Your task to perform on an android device: open app "NewsBreak: Local News & Alerts" (install if not already installed) Image 0: 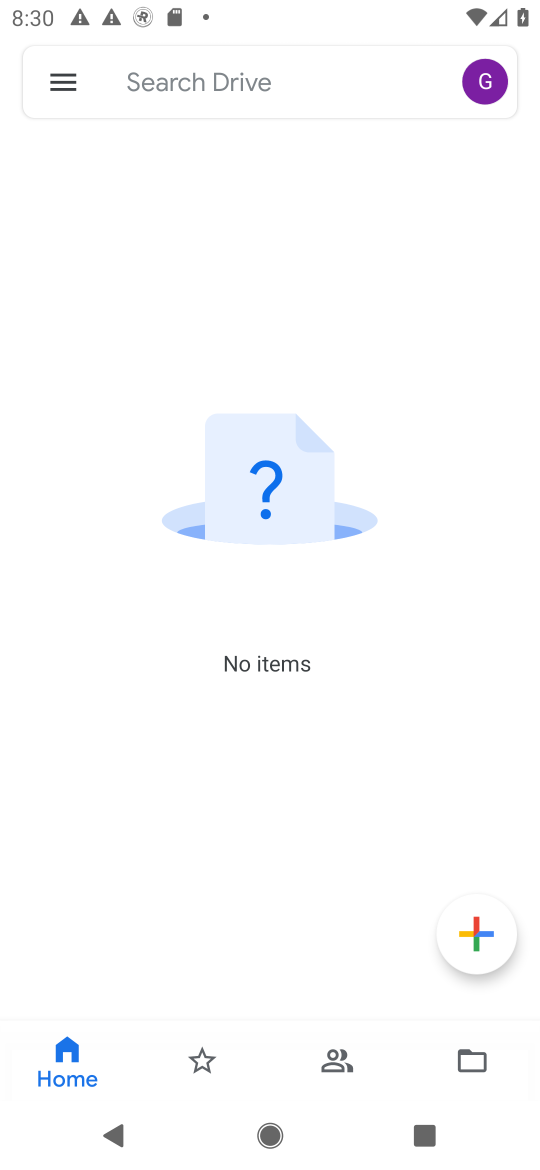
Step 0: press home button
Your task to perform on an android device: open app "NewsBreak: Local News & Alerts" (install if not already installed) Image 1: 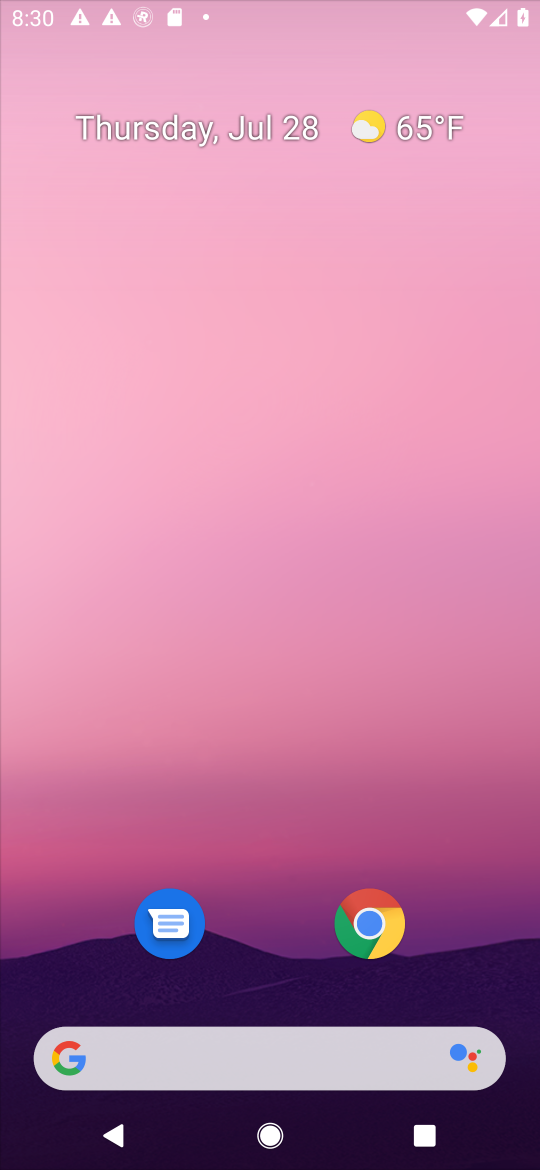
Step 1: drag from (430, 827) to (264, 92)
Your task to perform on an android device: open app "NewsBreak: Local News & Alerts" (install if not already installed) Image 2: 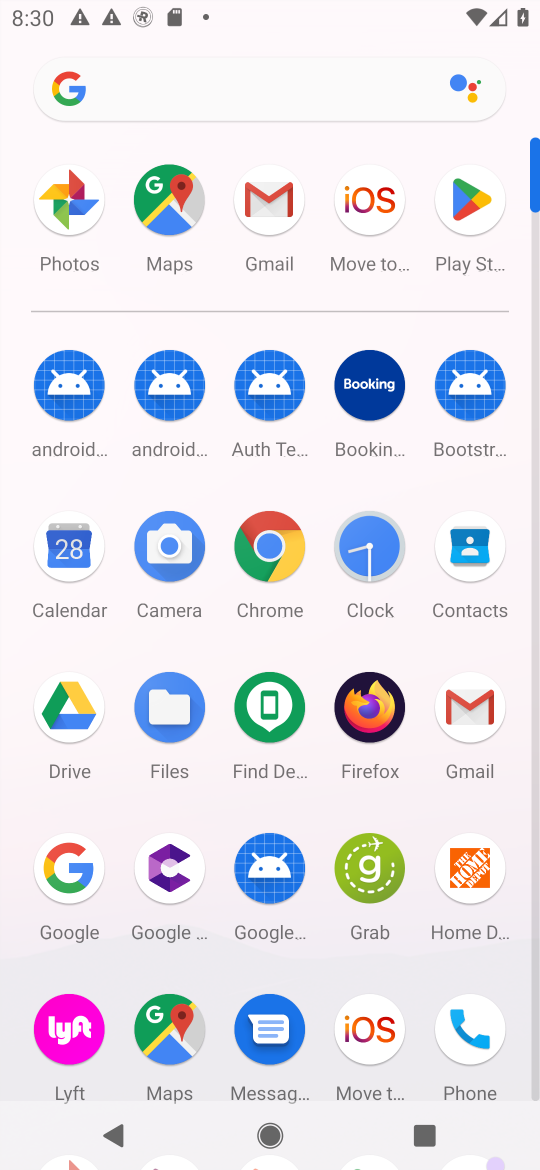
Step 2: click (488, 201)
Your task to perform on an android device: open app "NewsBreak: Local News & Alerts" (install if not already installed) Image 3: 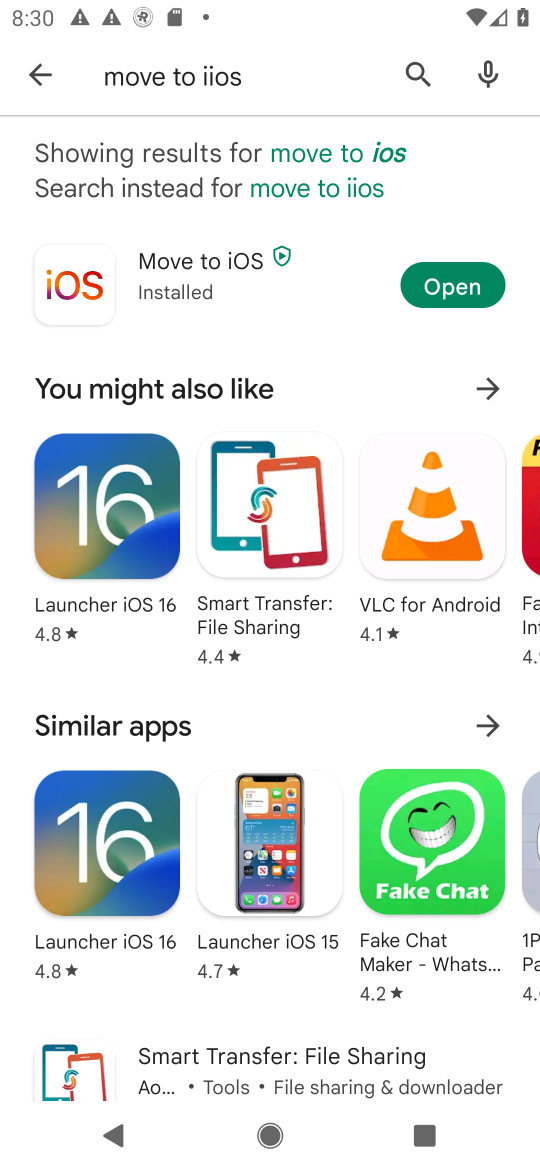
Step 3: click (301, 66)
Your task to perform on an android device: open app "NewsBreak: Local News & Alerts" (install if not already installed) Image 4: 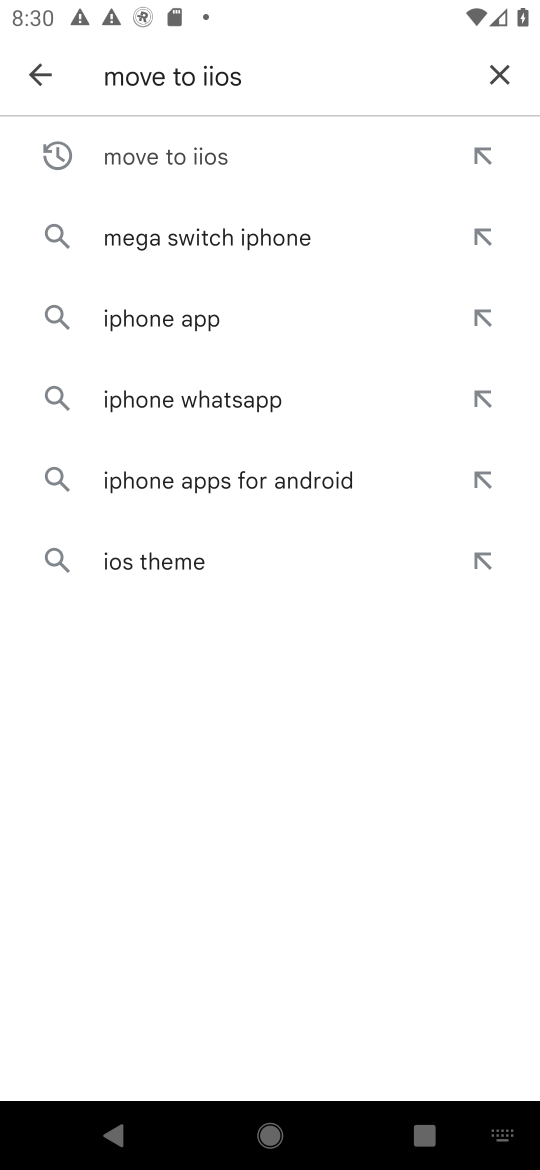
Step 4: click (507, 78)
Your task to perform on an android device: open app "NewsBreak: Local News & Alerts" (install if not already installed) Image 5: 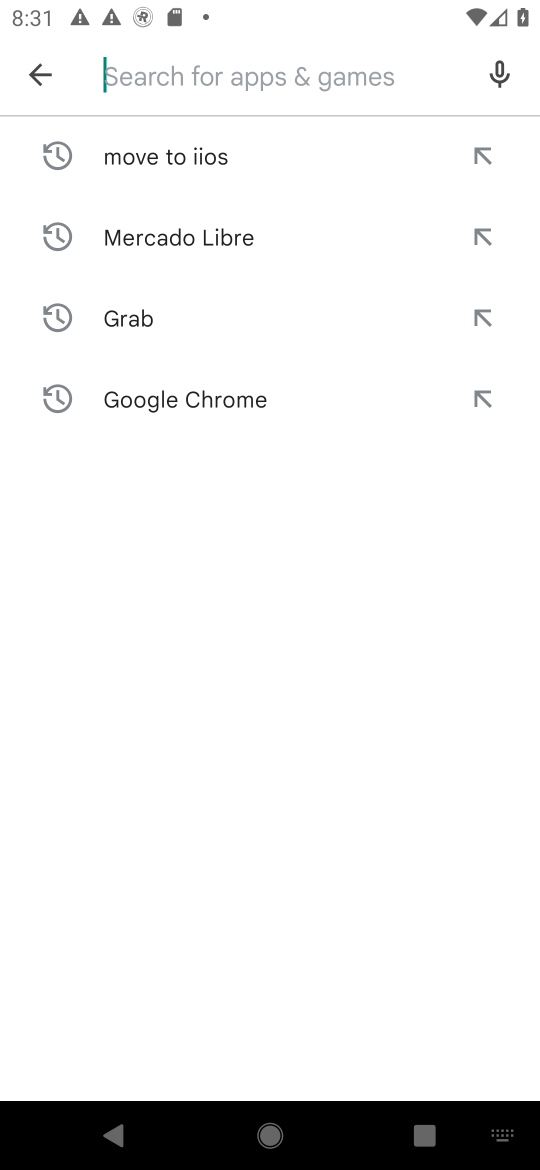
Step 5: type "NewsBreak: Local News & Alerts"
Your task to perform on an android device: open app "NewsBreak: Local News & Alerts" (install if not already installed) Image 6: 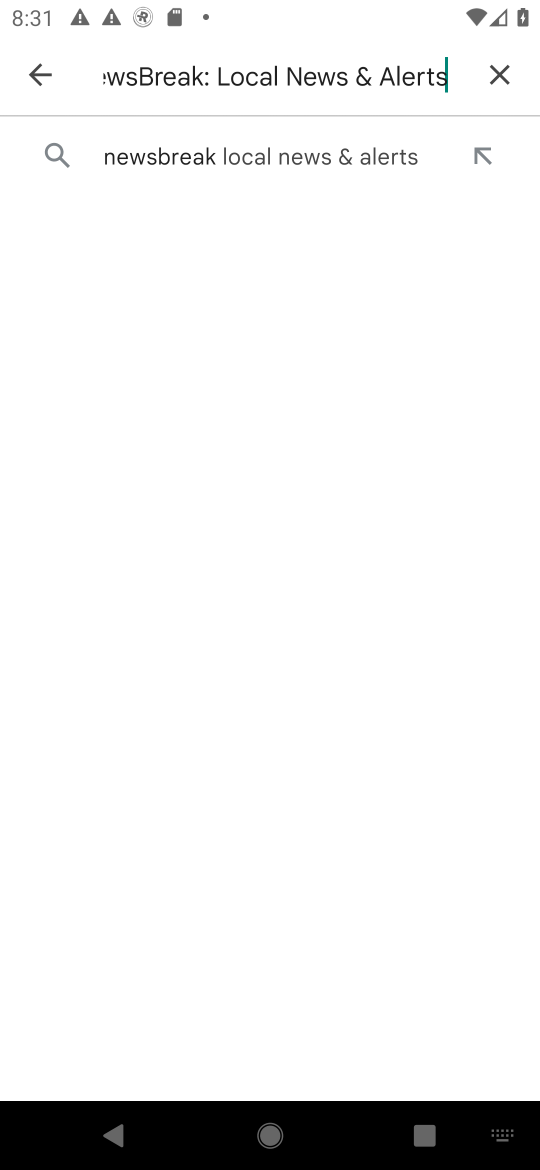
Step 6: press enter
Your task to perform on an android device: open app "NewsBreak: Local News & Alerts" (install if not already installed) Image 7: 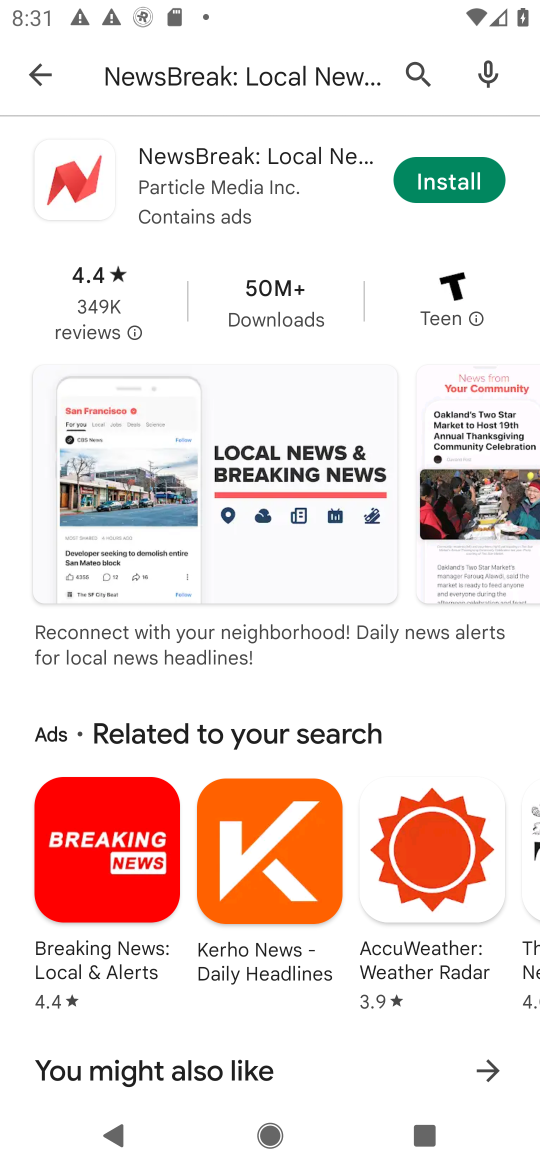
Step 7: click (247, 166)
Your task to perform on an android device: open app "NewsBreak: Local News & Alerts" (install if not already installed) Image 8: 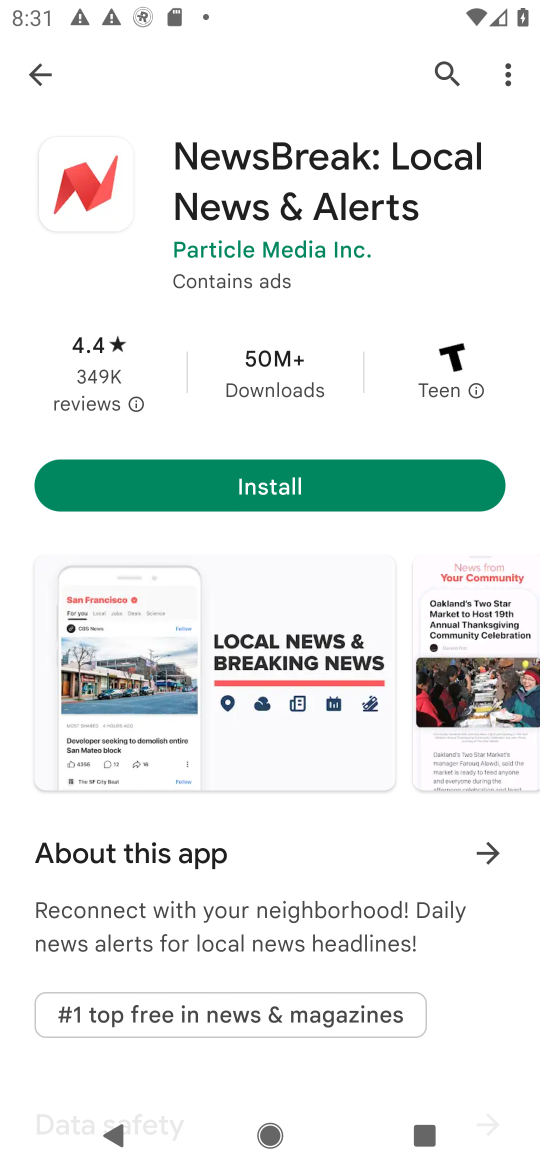
Step 8: click (377, 489)
Your task to perform on an android device: open app "NewsBreak: Local News & Alerts" (install if not already installed) Image 9: 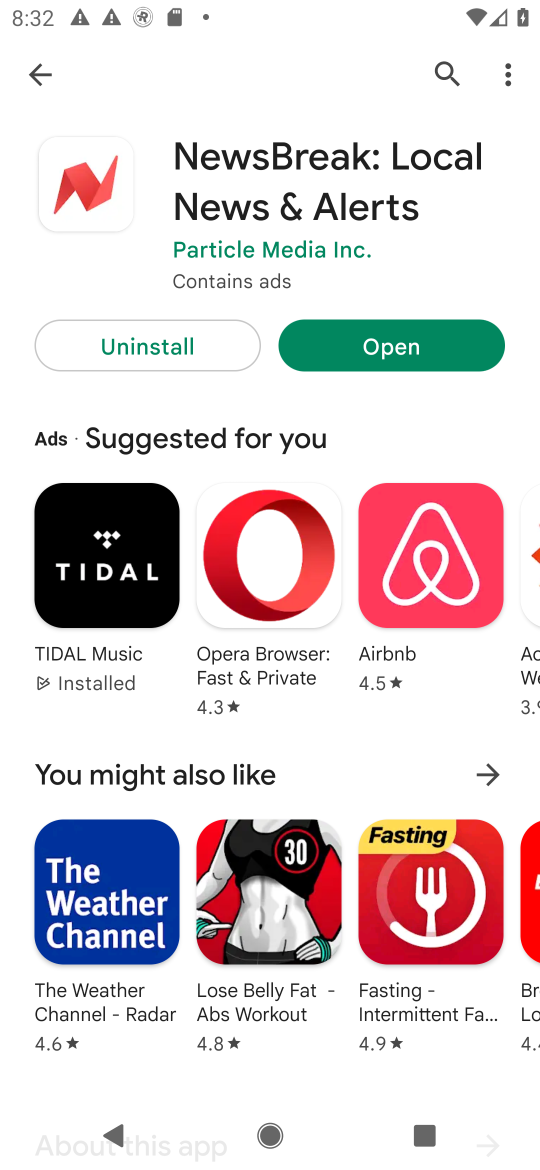
Step 9: click (458, 335)
Your task to perform on an android device: open app "NewsBreak: Local News & Alerts" (install if not already installed) Image 10: 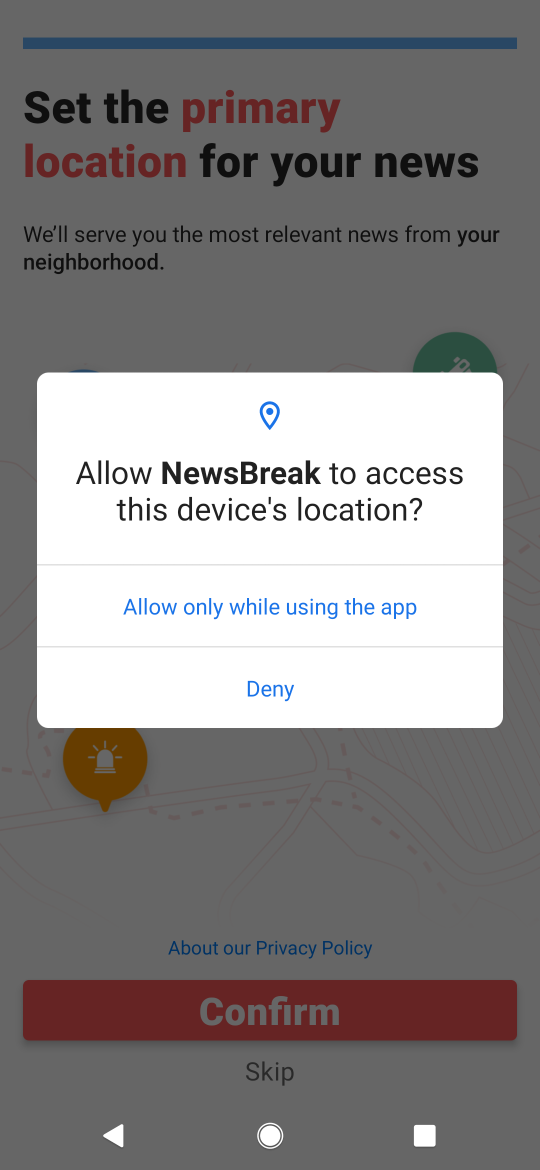
Step 10: task complete